Your task to perform on an android device: allow notifications from all sites in the chrome app Image 0: 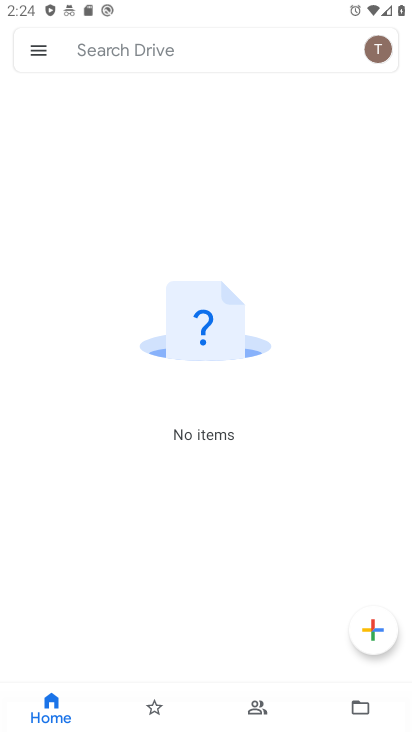
Step 0: press back button
Your task to perform on an android device: allow notifications from all sites in the chrome app Image 1: 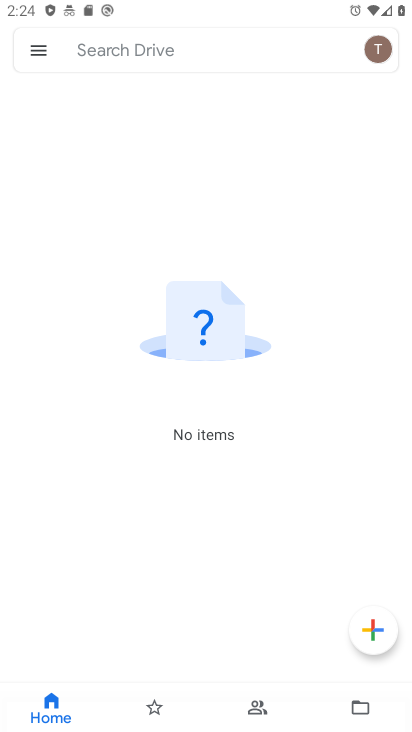
Step 1: press back button
Your task to perform on an android device: allow notifications from all sites in the chrome app Image 2: 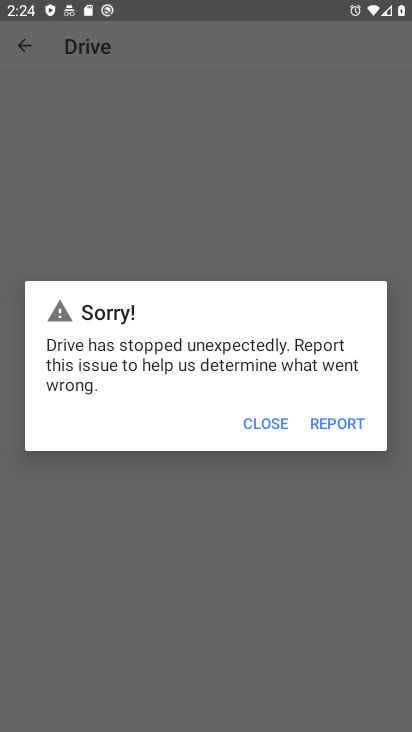
Step 2: click (239, 414)
Your task to perform on an android device: allow notifications from all sites in the chrome app Image 3: 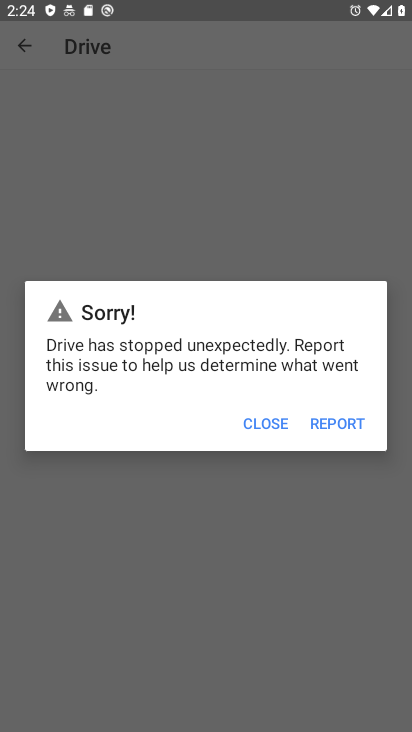
Step 3: click (238, 419)
Your task to perform on an android device: allow notifications from all sites in the chrome app Image 4: 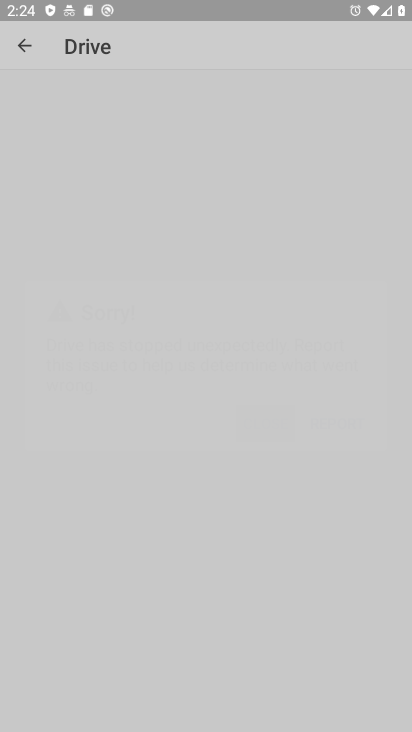
Step 4: click (238, 419)
Your task to perform on an android device: allow notifications from all sites in the chrome app Image 5: 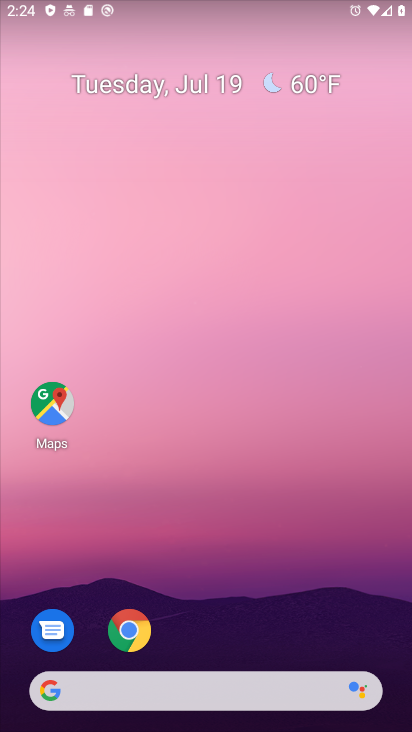
Step 5: drag from (182, 598) to (213, 186)
Your task to perform on an android device: allow notifications from all sites in the chrome app Image 6: 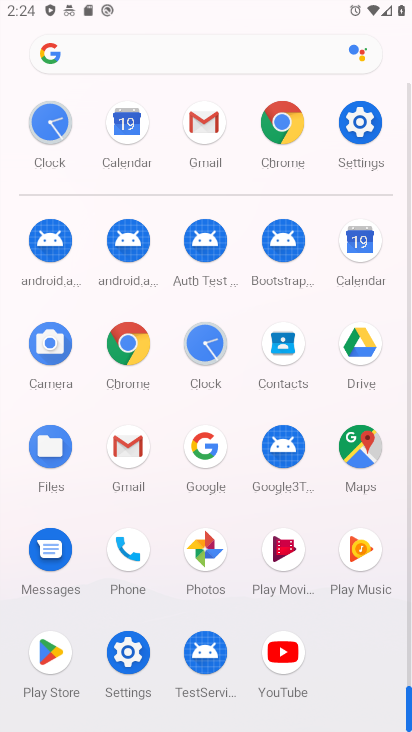
Step 6: click (123, 350)
Your task to perform on an android device: allow notifications from all sites in the chrome app Image 7: 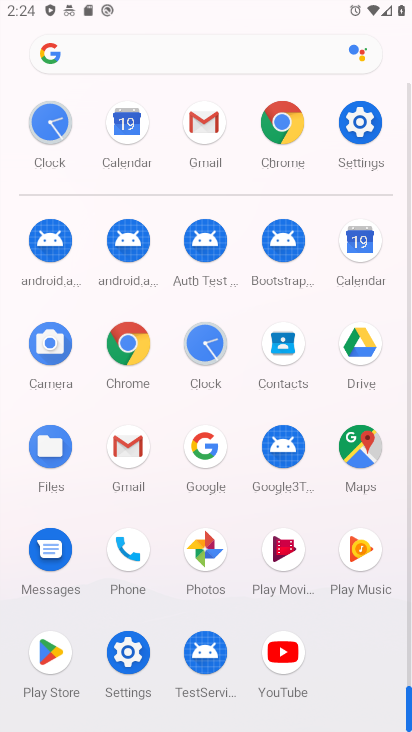
Step 7: click (123, 350)
Your task to perform on an android device: allow notifications from all sites in the chrome app Image 8: 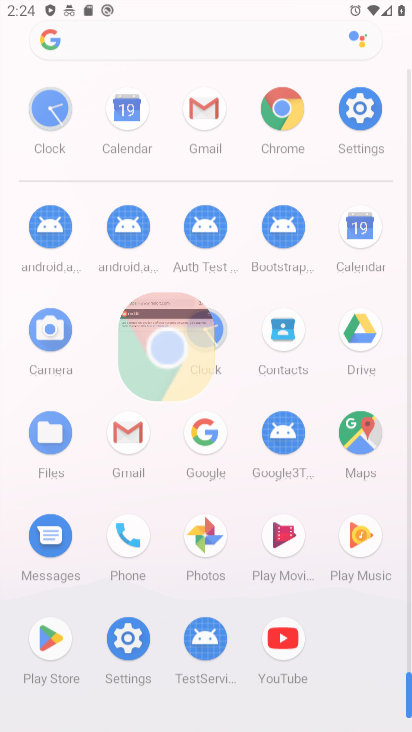
Step 8: click (124, 350)
Your task to perform on an android device: allow notifications from all sites in the chrome app Image 9: 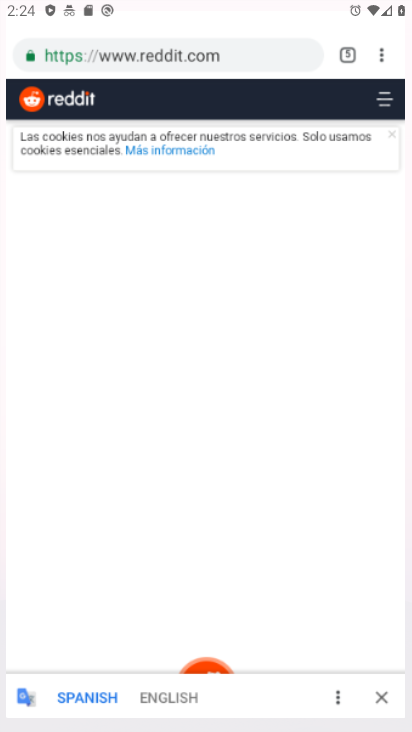
Step 9: click (127, 349)
Your task to perform on an android device: allow notifications from all sites in the chrome app Image 10: 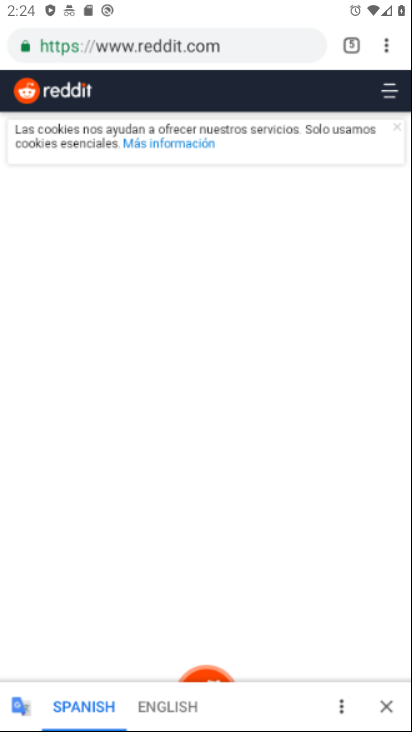
Step 10: click (130, 350)
Your task to perform on an android device: allow notifications from all sites in the chrome app Image 11: 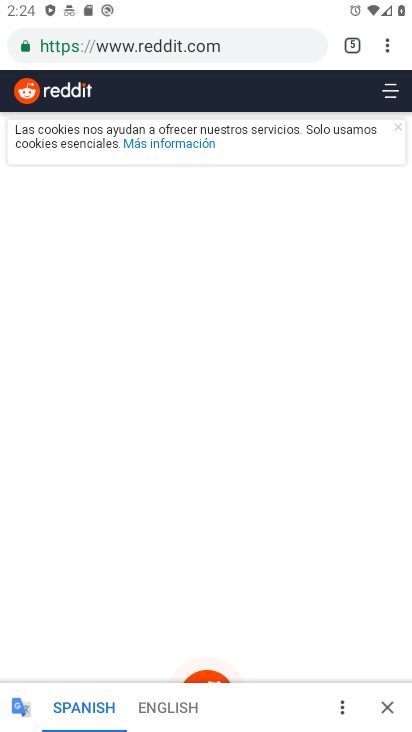
Step 11: drag from (388, 51) to (220, 548)
Your task to perform on an android device: allow notifications from all sites in the chrome app Image 12: 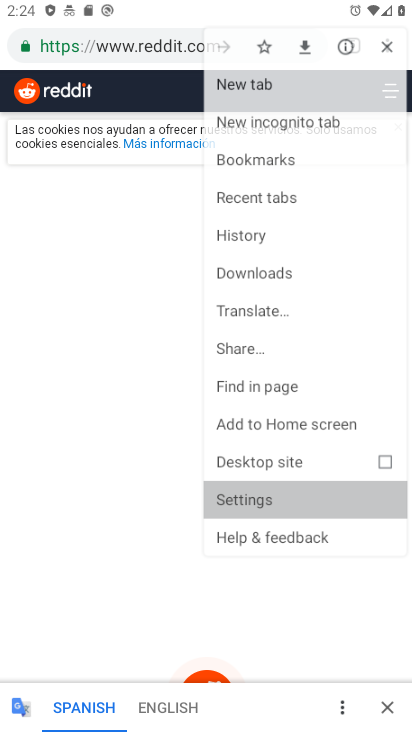
Step 12: click (220, 548)
Your task to perform on an android device: allow notifications from all sites in the chrome app Image 13: 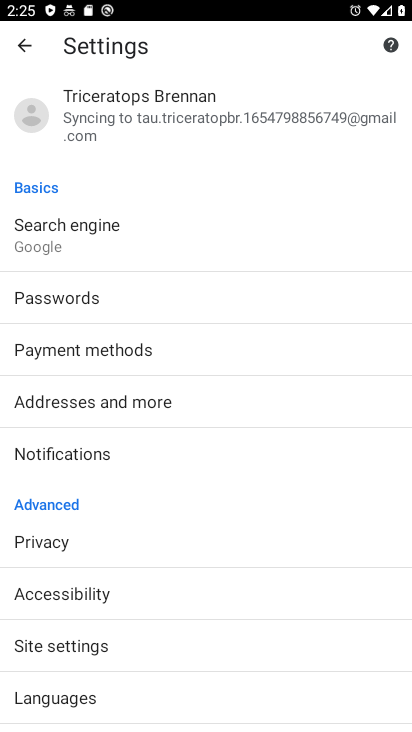
Step 13: drag from (79, 591) to (48, 369)
Your task to perform on an android device: allow notifications from all sites in the chrome app Image 14: 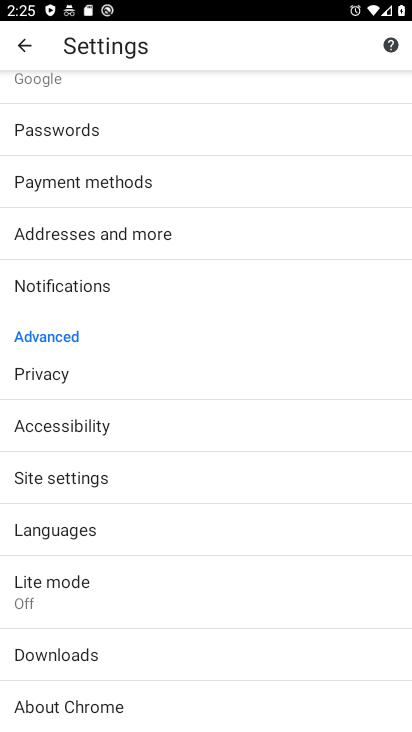
Step 14: click (43, 467)
Your task to perform on an android device: allow notifications from all sites in the chrome app Image 15: 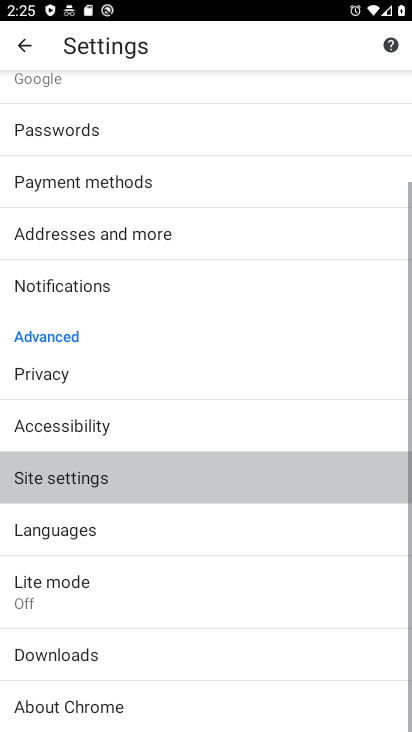
Step 15: click (48, 478)
Your task to perform on an android device: allow notifications from all sites in the chrome app Image 16: 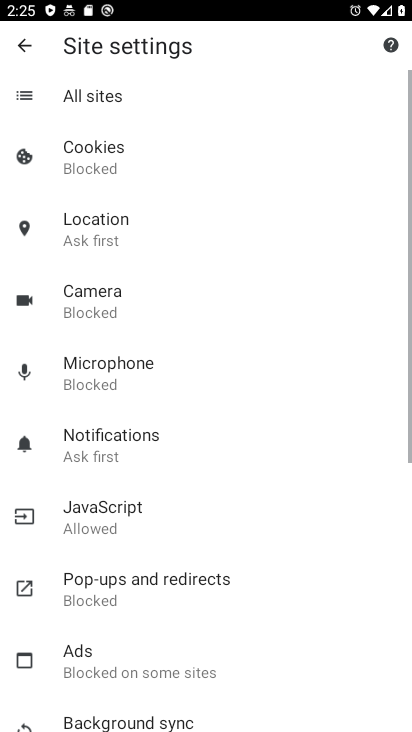
Step 16: click (93, 91)
Your task to perform on an android device: allow notifications from all sites in the chrome app Image 17: 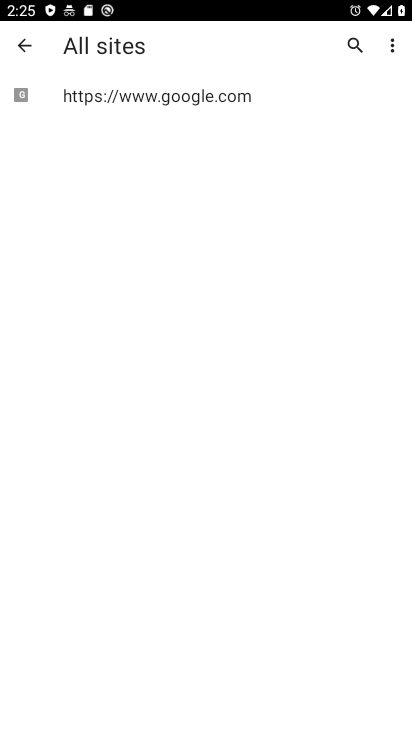
Step 17: click (143, 97)
Your task to perform on an android device: allow notifications from all sites in the chrome app Image 18: 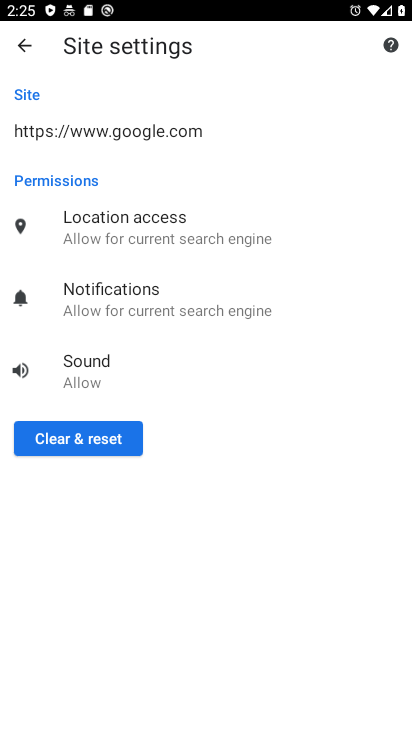
Step 18: click (85, 278)
Your task to perform on an android device: allow notifications from all sites in the chrome app Image 19: 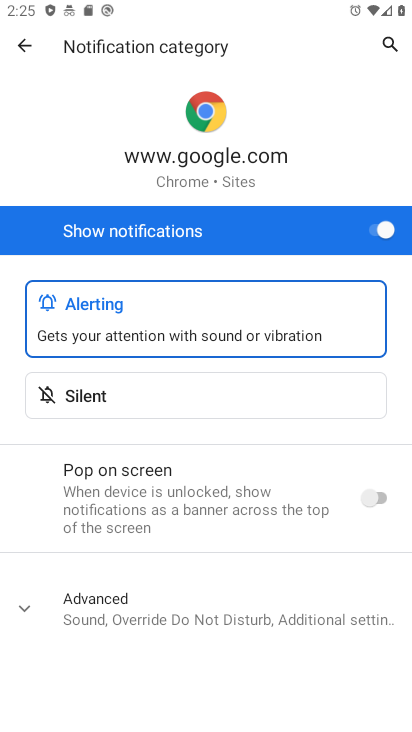
Step 19: click (337, 68)
Your task to perform on an android device: allow notifications from all sites in the chrome app Image 20: 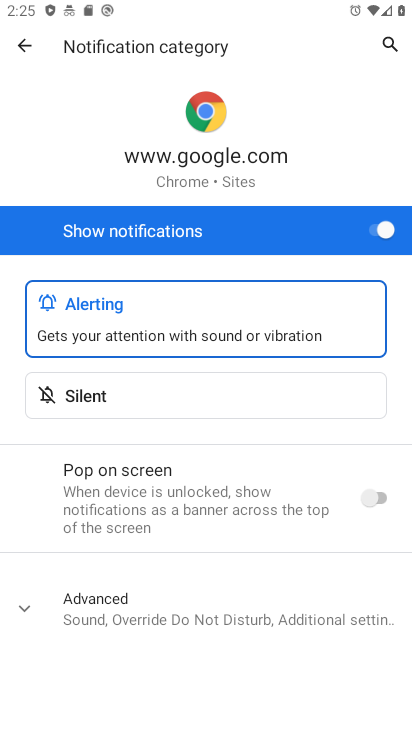
Step 20: task complete